Your task to perform on an android device: Go to accessibility settings Image 0: 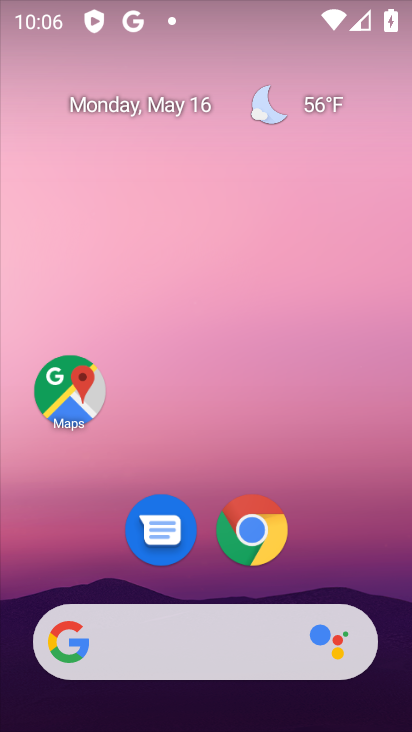
Step 0: drag from (374, 470) to (383, 123)
Your task to perform on an android device: Go to accessibility settings Image 1: 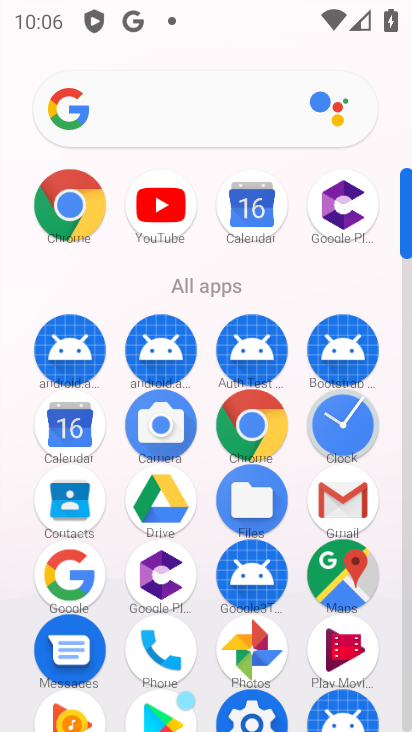
Step 1: drag from (390, 540) to (394, 309)
Your task to perform on an android device: Go to accessibility settings Image 2: 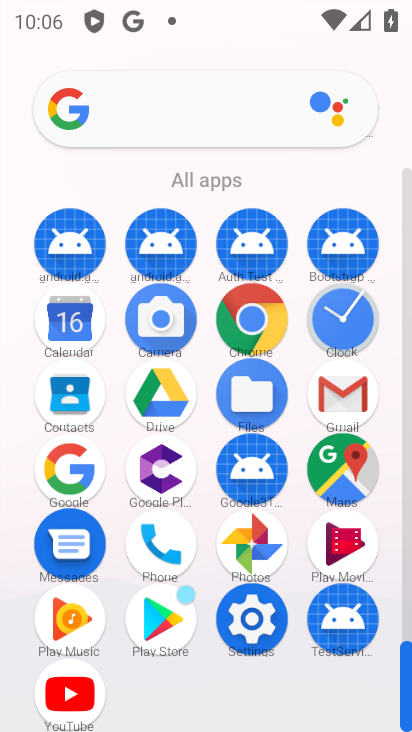
Step 2: click (266, 614)
Your task to perform on an android device: Go to accessibility settings Image 3: 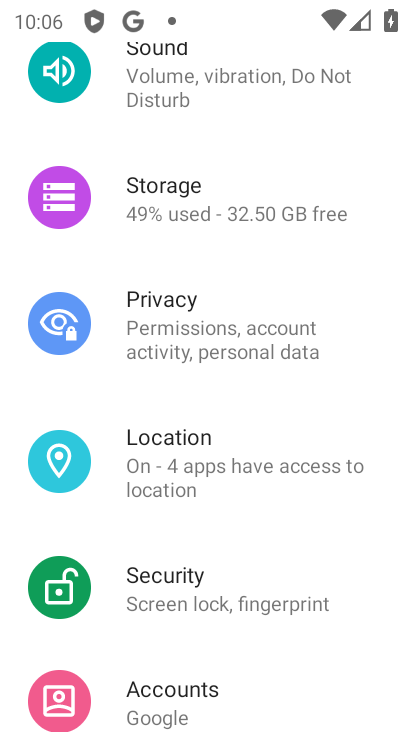
Step 3: drag from (376, 277) to (363, 502)
Your task to perform on an android device: Go to accessibility settings Image 4: 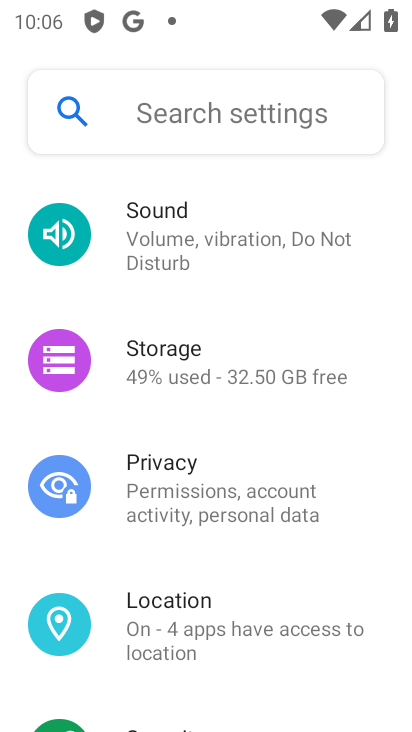
Step 4: drag from (377, 256) to (371, 437)
Your task to perform on an android device: Go to accessibility settings Image 5: 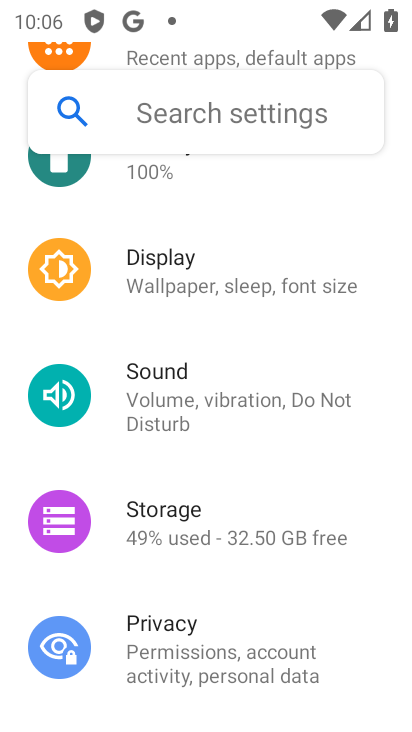
Step 5: drag from (380, 233) to (383, 441)
Your task to perform on an android device: Go to accessibility settings Image 6: 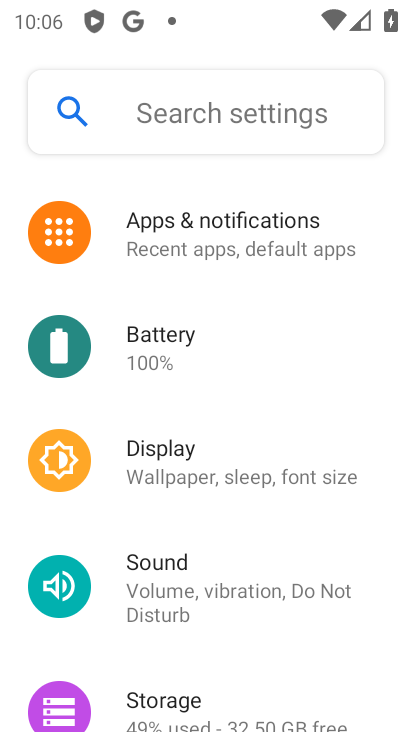
Step 6: drag from (382, 211) to (367, 386)
Your task to perform on an android device: Go to accessibility settings Image 7: 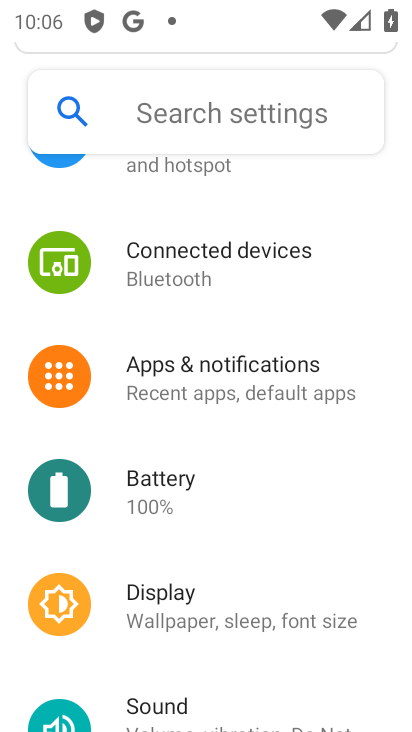
Step 7: drag from (352, 222) to (362, 415)
Your task to perform on an android device: Go to accessibility settings Image 8: 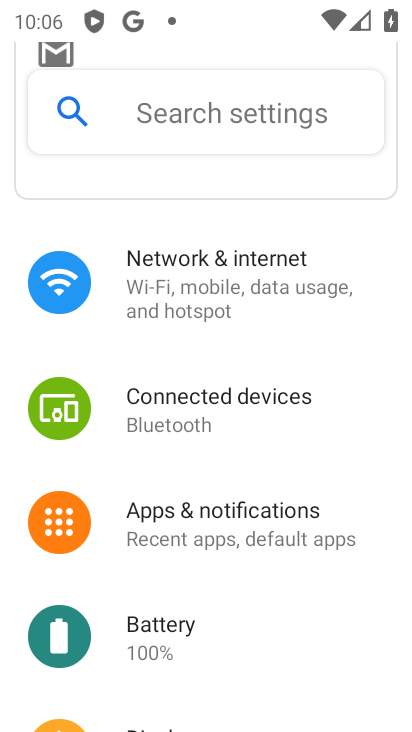
Step 8: drag from (356, 482) to (363, 340)
Your task to perform on an android device: Go to accessibility settings Image 9: 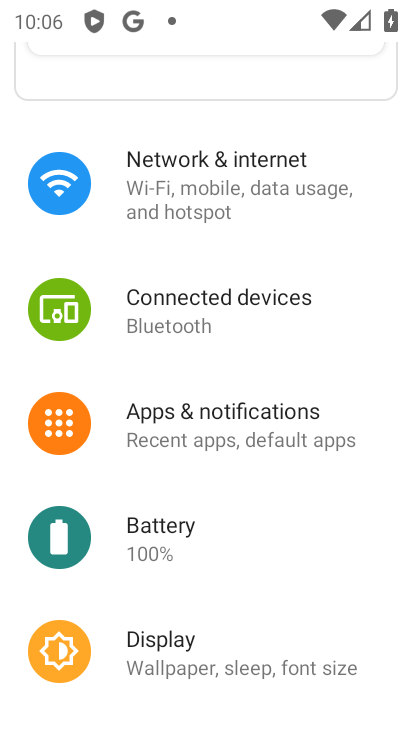
Step 9: drag from (348, 571) to (349, 367)
Your task to perform on an android device: Go to accessibility settings Image 10: 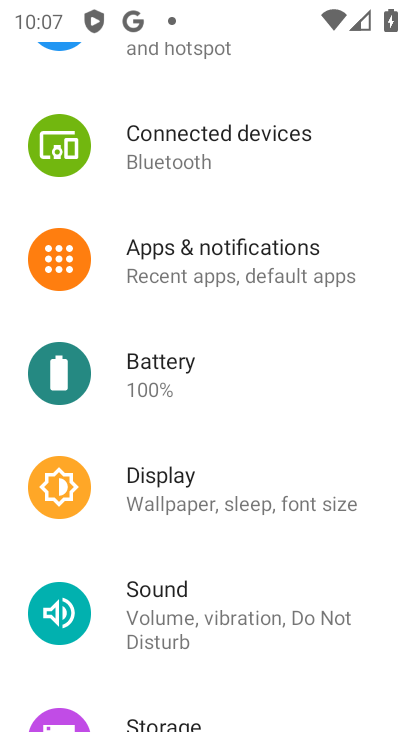
Step 10: drag from (363, 599) to (370, 421)
Your task to perform on an android device: Go to accessibility settings Image 11: 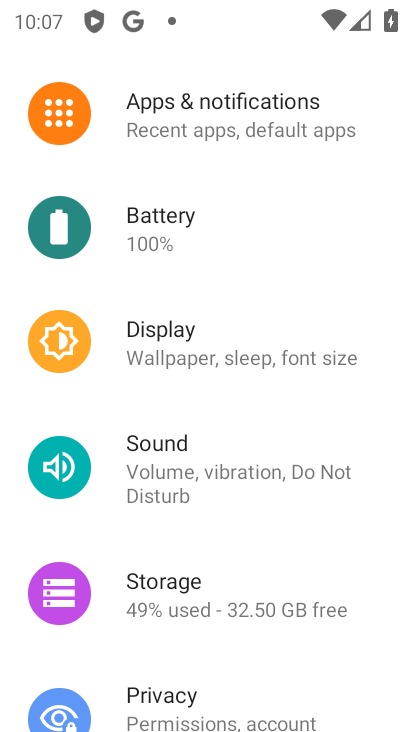
Step 11: drag from (342, 613) to (345, 436)
Your task to perform on an android device: Go to accessibility settings Image 12: 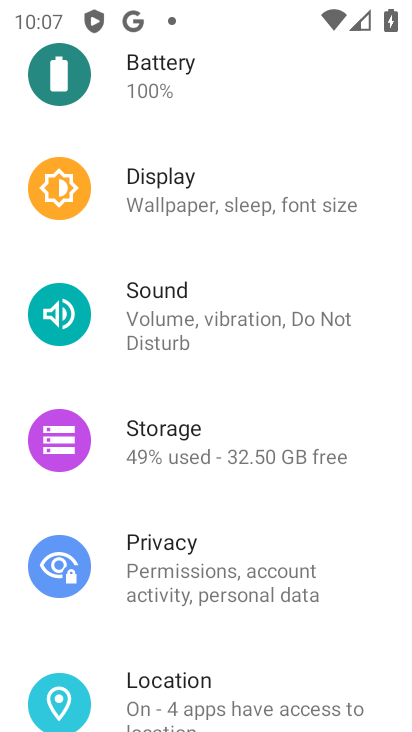
Step 12: drag from (358, 635) to (364, 475)
Your task to perform on an android device: Go to accessibility settings Image 13: 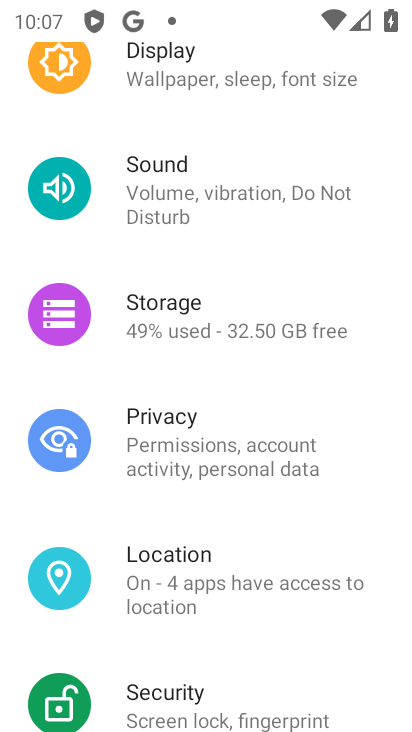
Step 13: drag from (359, 656) to (365, 516)
Your task to perform on an android device: Go to accessibility settings Image 14: 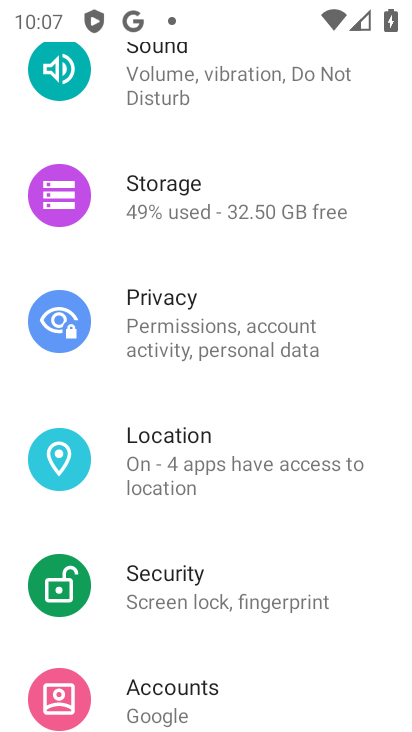
Step 14: drag from (344, 655) to (347, 504)
Your task to perform on an android device: Go to accessibility settings Image 15: 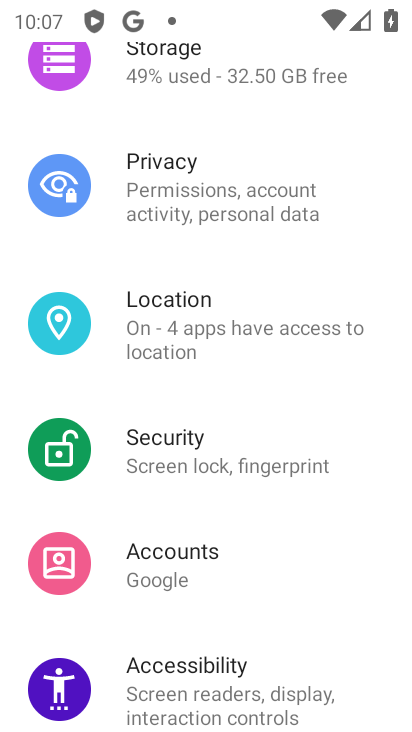
Step 15: drag from (333, 635) to (354, 526)
Your task to perform on an android device: Go to accessibility settings Image 16: 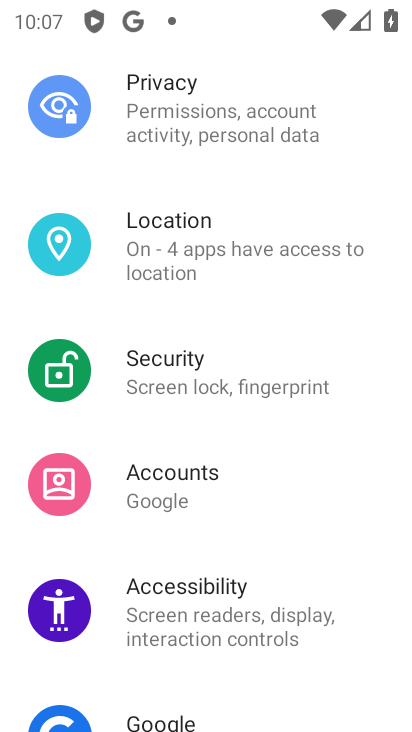
Step 16: click (317, 616)
Your task to perform on an android device: Go to accessibility settings Image 17: 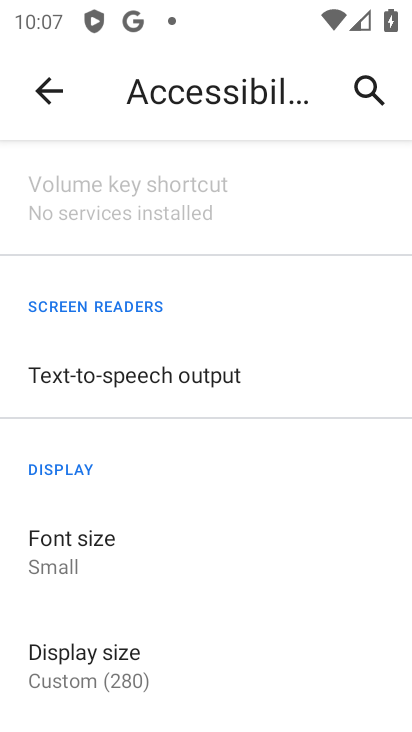
Step 17: task complete